Your task to perform on an android device: turn smart compose on in the gmail app Image 0: 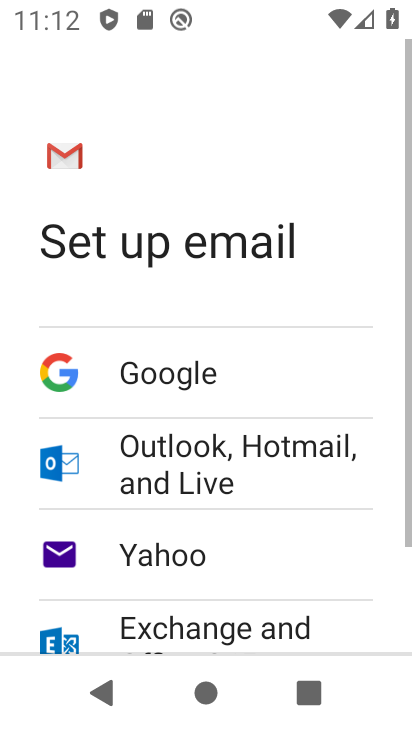
Step 0: press home button
Your task to perform on an android device: turn smart compose on in the gmail app Image 1: 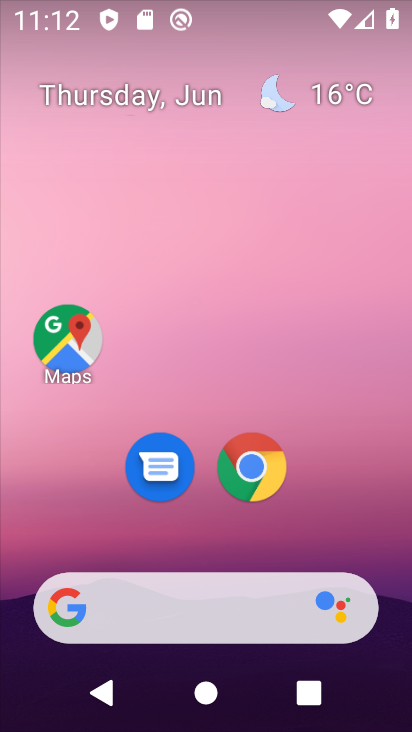
Step 1: drag from (376, 555) to (352, 199)
Your task to perform on an android device: turn smart compose on in the gmail app Image 2: 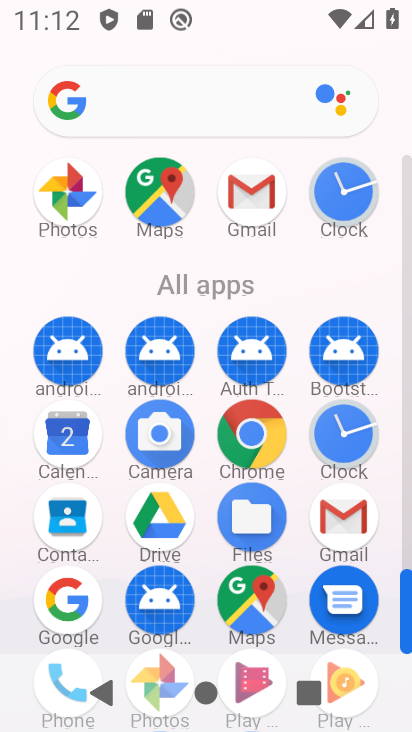
Step 2: click (406, 555)
Your task to perform on an android device: turn smart compose on in the gmail app Image 3: 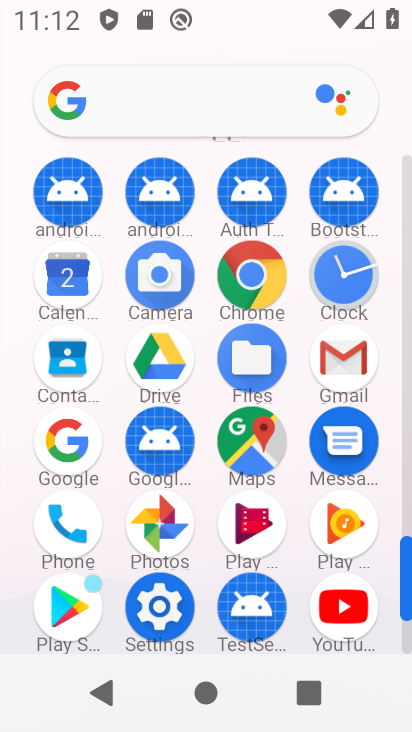
Step 3: click (343, 347)
Your task to perform on an android device: turn smart compose on in the gmail app Image 4: 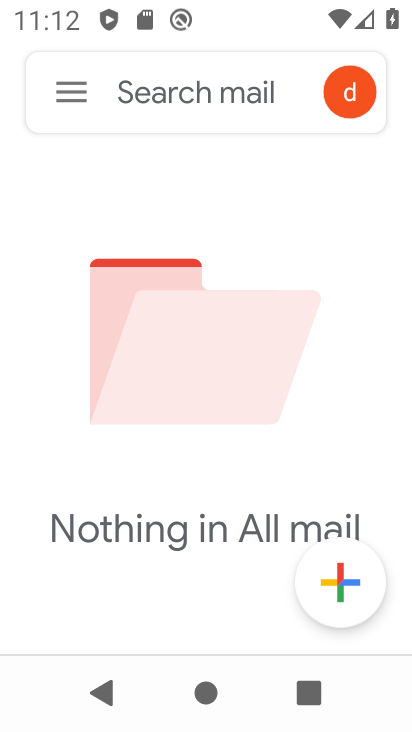
Step 4: click (73, 95)
Your task to perform on an android device: turn smart compose on in the gmail app Image 5: 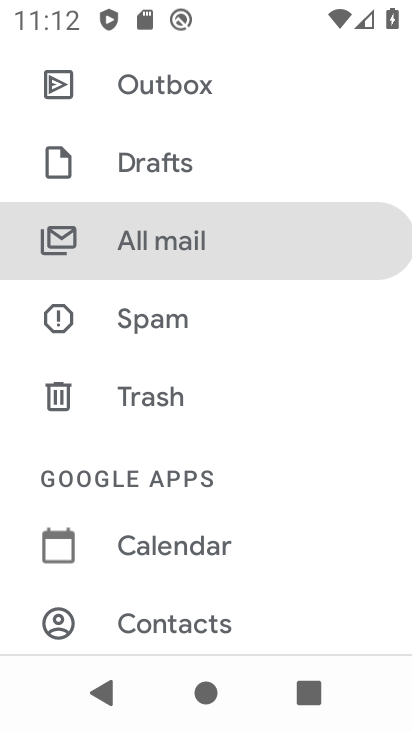
Step 5: drag from (271, 564) to (261, 224)
Your task to perform on an android device: turn smart compose on in the gmail app Image 6: 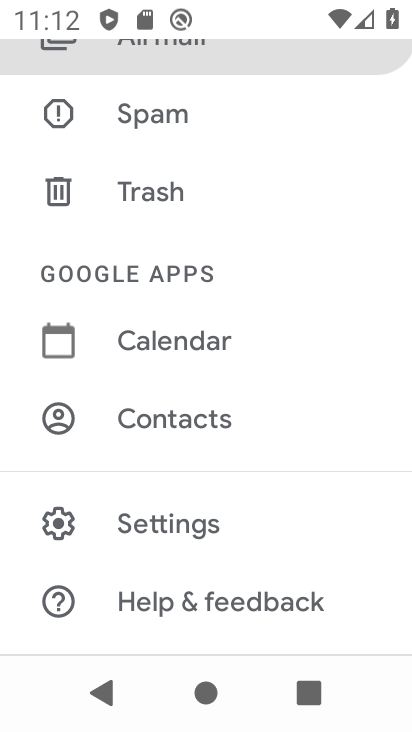
Step 6: click (168, 520)
Your task to perform on an android device: turn smart compose on in the gmail app Image 7: 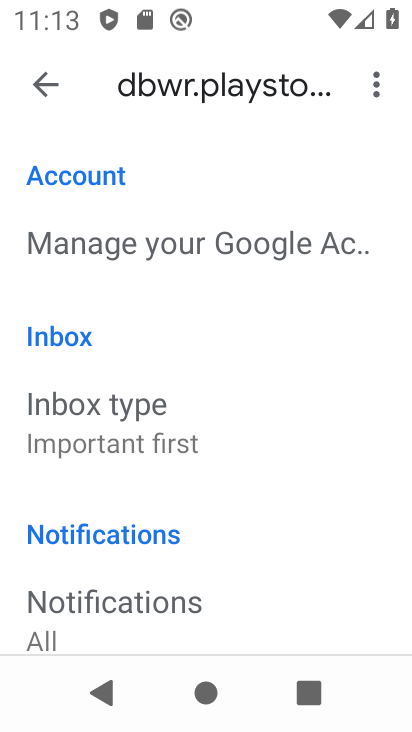
Step 7: task complete